Your task to perform on an android device: turn off sleep mode Image 0: 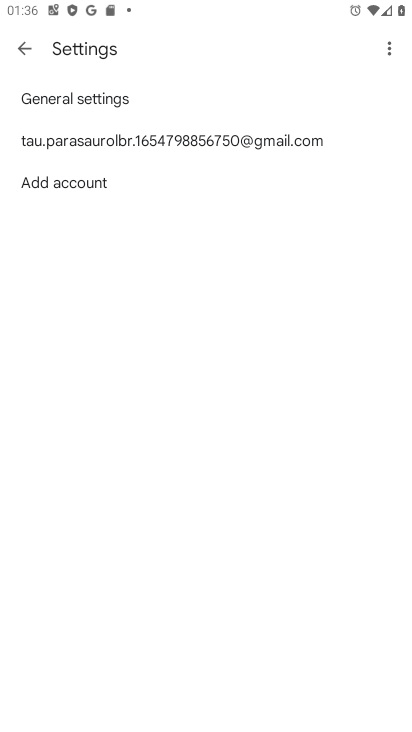
Step 0: press home button
Your task to perform on an android device: turn off sleep mode Image 1: 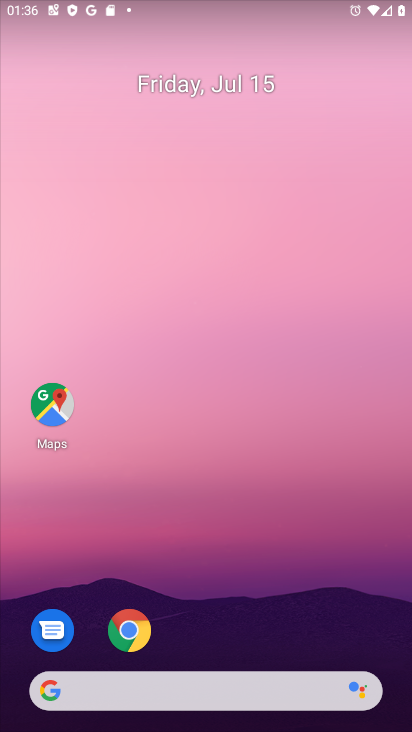
Step 1: drag from (337, 647) to (242, 250)
Your task to perform on an android device: turn off sleep mode Image 2: 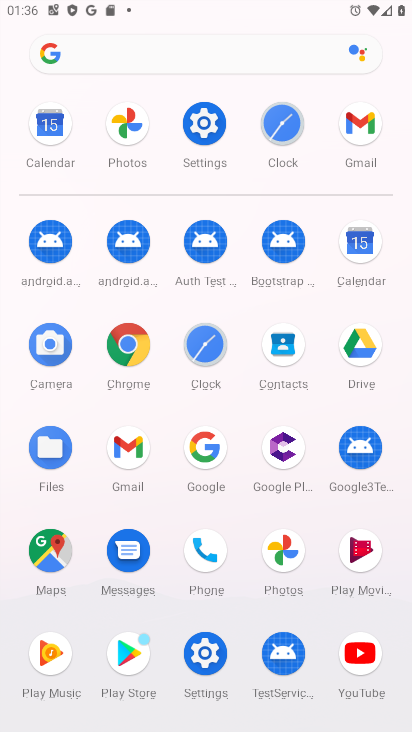
Step 2: click (202, 646)
Your task to perform on an android device: turn off sleep mode Image 3: 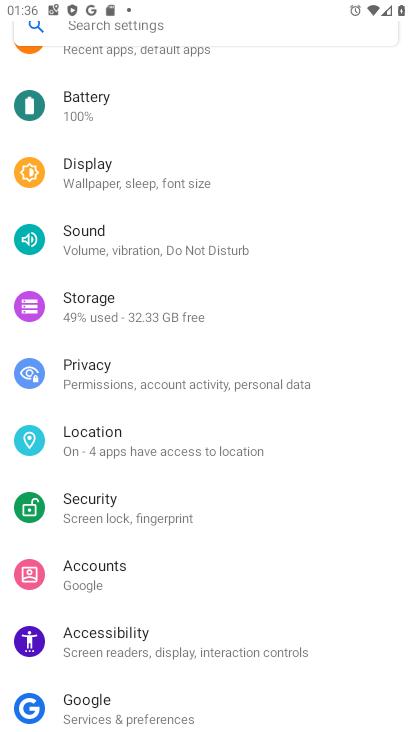
Step 3: click (173, 179)
Your task to perform on an android device: turn off sleep mode Image 4: 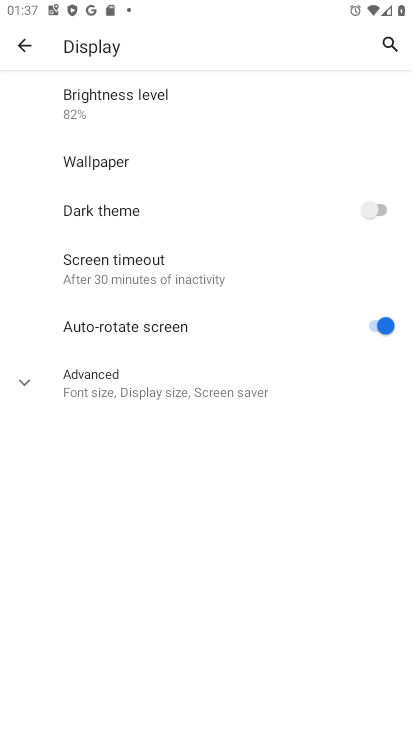
Step 4: click (164, 391)
Your task to perform on an android device: turn off sleep mode Image 5: 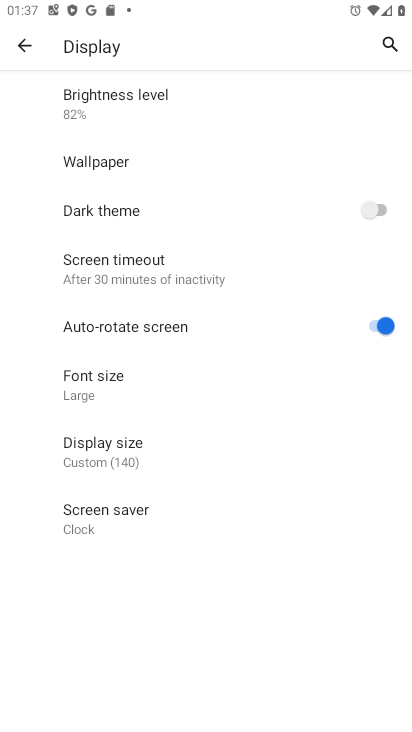
Step 5: task complete